Your task to perform on an android device: Open my contact list Image 0: 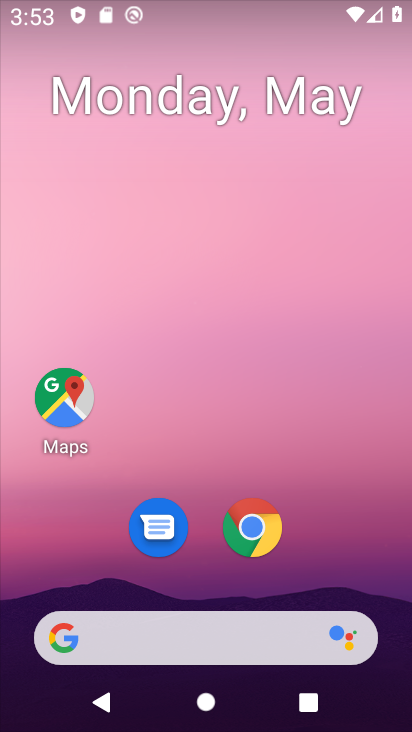
Step 0: drag from (222, 578) to (404, 125)
Your task to perform on an android device: Open my contact list Image 1: 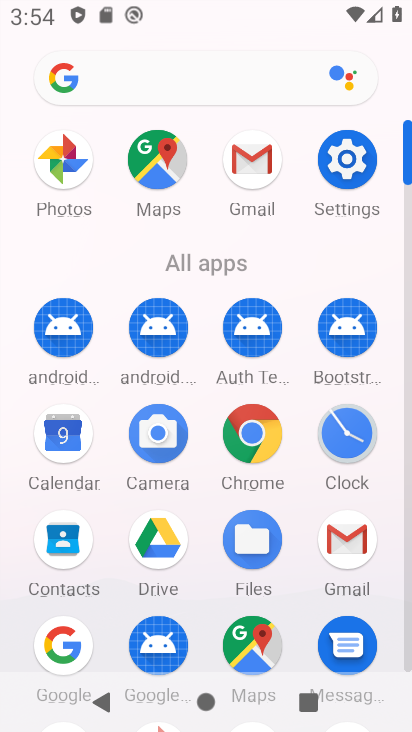
Step 1: drag from (208, 598) to (226, 403)
Your task to perform on an android device: Open my contact list Image 2: 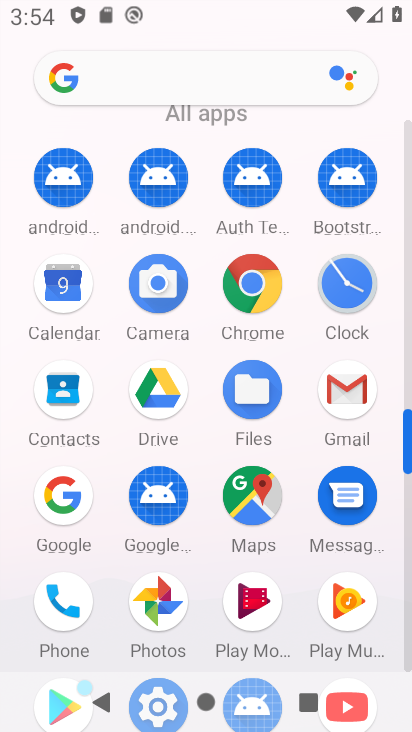
Step 2: click (55, 390)
Your task to perform on an android device: Open my contact list Image 3: 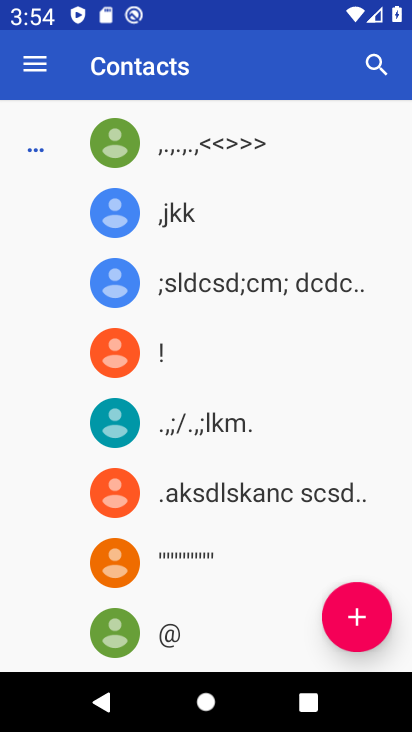
Step 3: task complete